Your task to perform on an android device: turn on data saver in the chrome app Image 0: 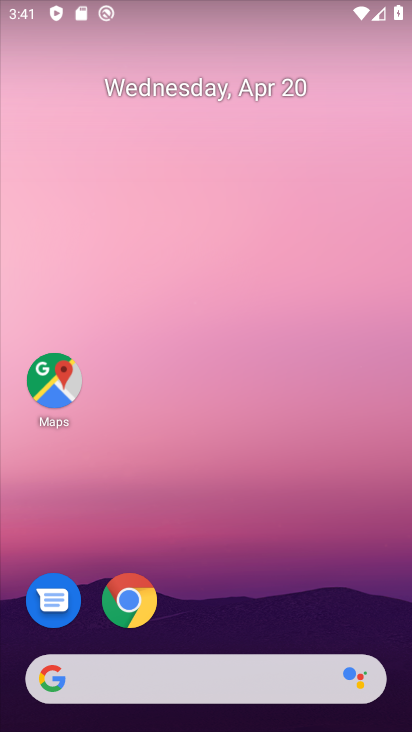
Step 0: drag from (79, 328) to (65, 89)
Your task to perform on an android device: turn on data saver in the chrome app Image 1: 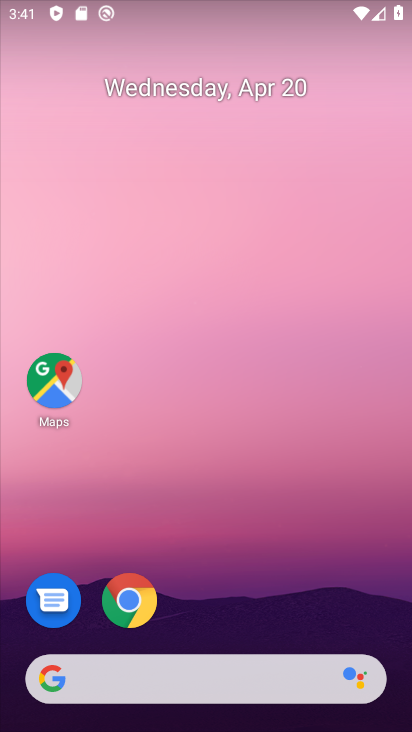
Step 1: drag from (256, 703) to (88, 48)
Your task to perform on an android device: turn on data saver in the chrome app Image 2: 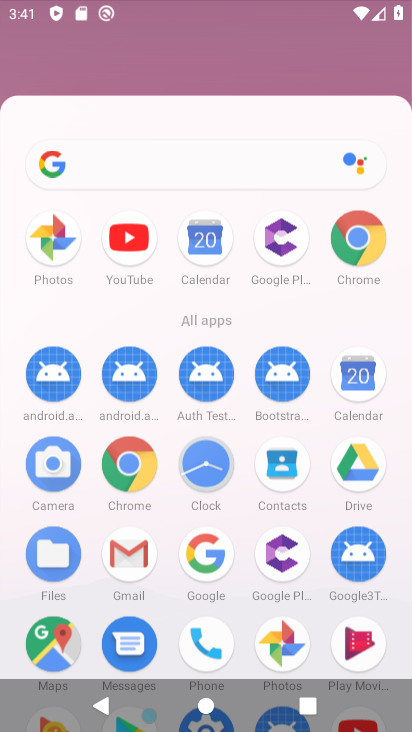
Step 2: drag from (278, 398) to (217, 153)
Your task to perform on an android device: turn on data saver in the chrome app Image 3: 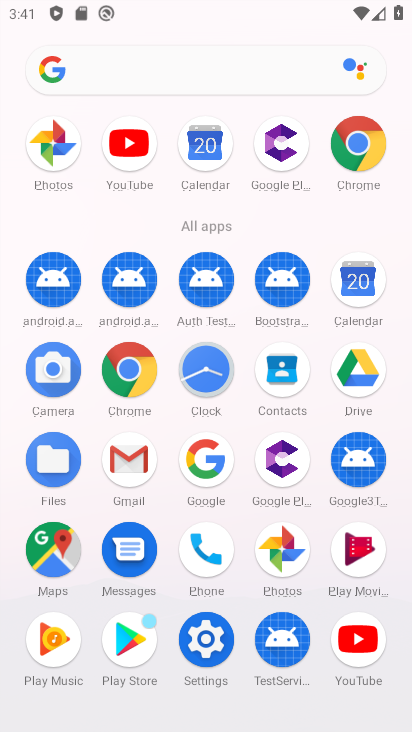
Step 3: click (363, 150)
Your task to perform on an android device: turn on data saver in the chrome app Image 4: 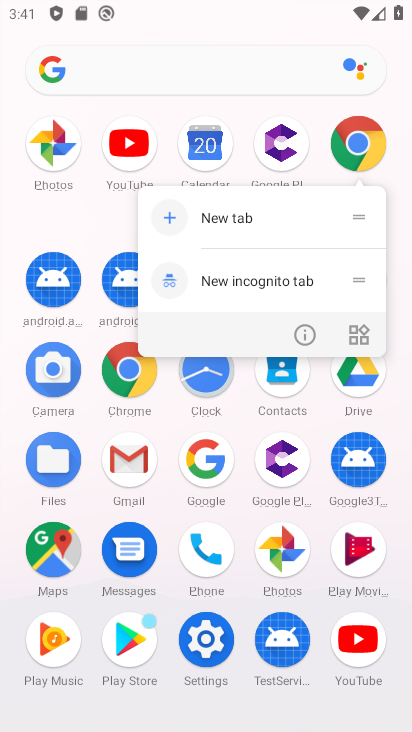
Step 4: click (198, 216)
Your task to perform on an android device: turn on data saver in the chrome app Image 5: 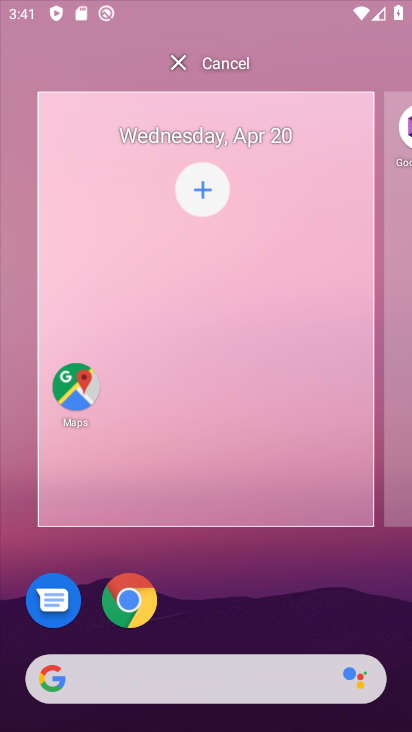
Step 5: click (213, 222)
Your task to perform on an android device: turn on data saver in the chrome app Image 6: 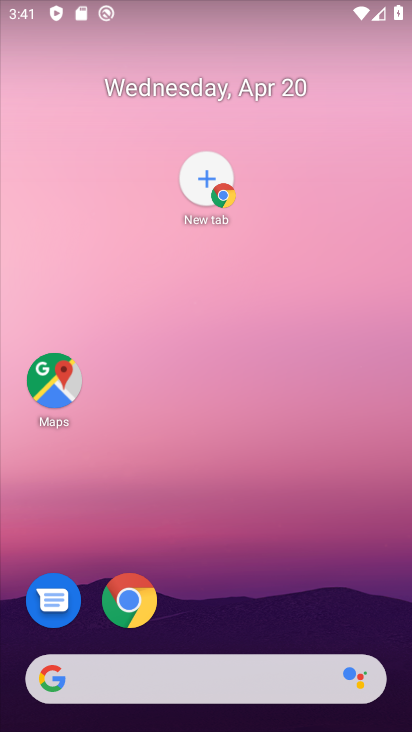
Step 6: drag from (290, 617) to (133, 167)
Your task to perform on an android device: turn on data saver in the chrome app Image 7: 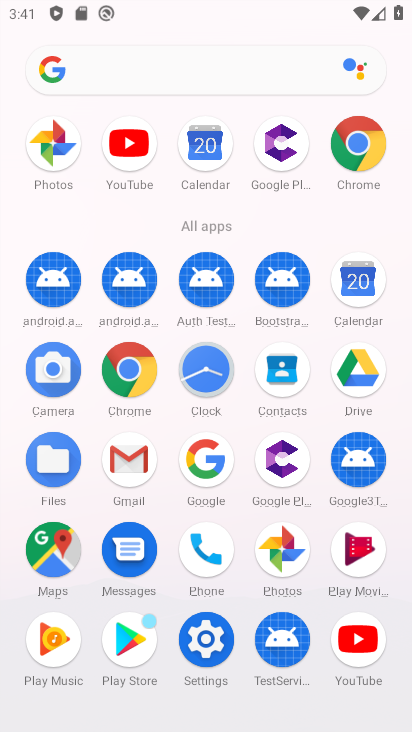
Step 7: click (349, 152)
Your task to perform on an android device: turn on data saver in the chrome app Image 8: 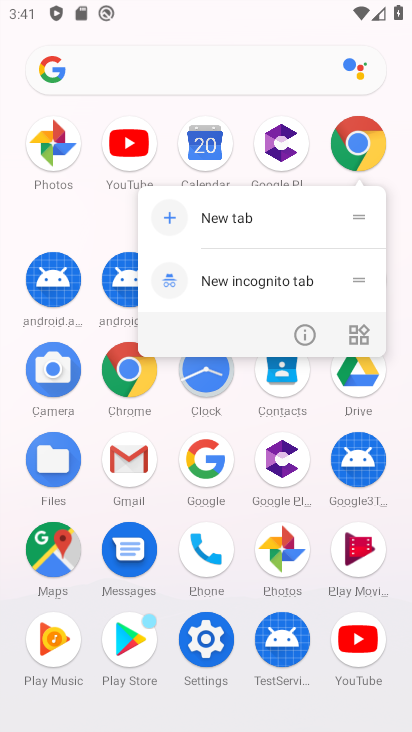
Step 8: click (234, 220)
Your task to perform on an android device: turn on data saver in the chrome app Image 9: 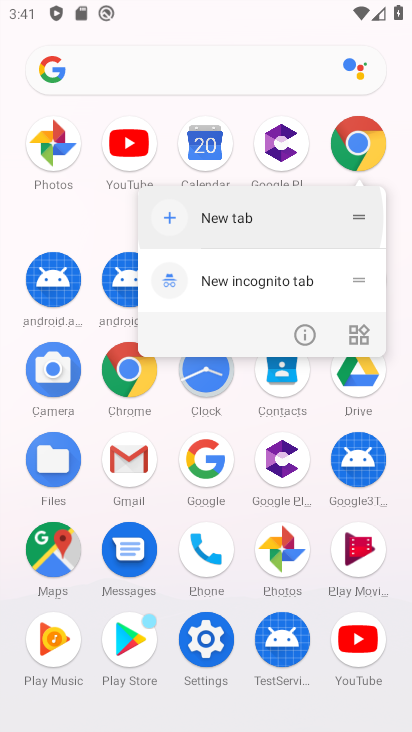
Step 9: click (234, 220)
Your task to perform on an android device: turn on data saver in the chrome app Image 10: 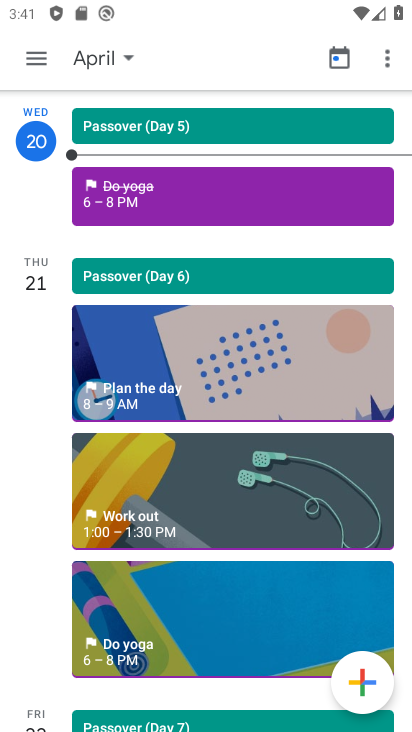
Step 10: press home button
Your task to perform on an android device: turn on data saver in the chrome app Image 11: 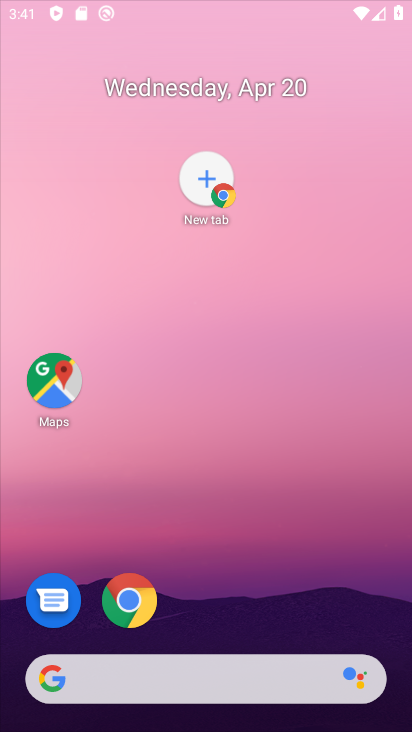
Step 11: press home button
Your task to perform on an android device: turn on data saver in the chrome app Image 12: 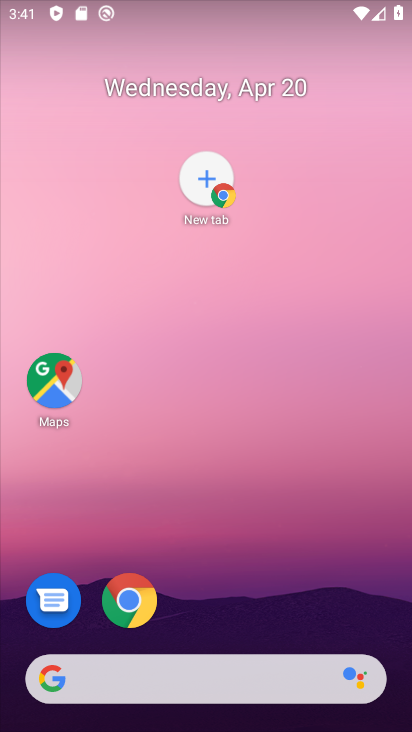
Step 12: press home button
Your task to perform on an android device: turn on data saver in the chrome app Image 13: 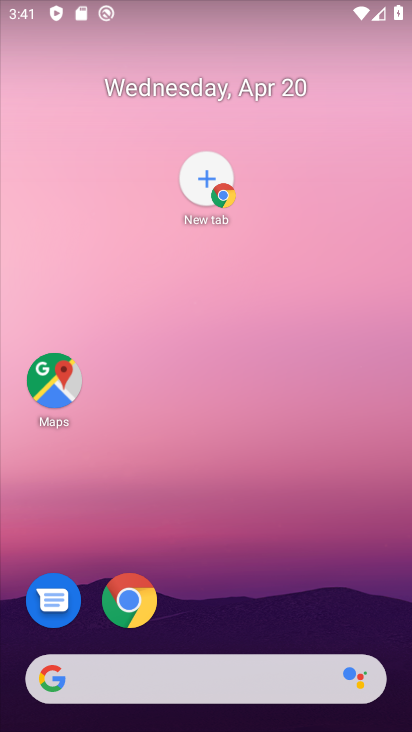
Step 13: drag from (281, 440) to (208, 46)
Your task to perform on an android device: turn on data saver in the chrome app Image 14: 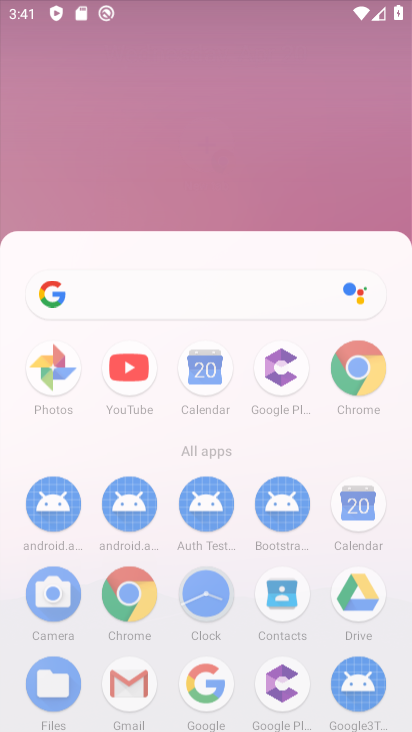
Step 14: drag from (242, 485) to (185, 10)
Your task to perform on an android device: turn on data saver in the chrome app Image 15: 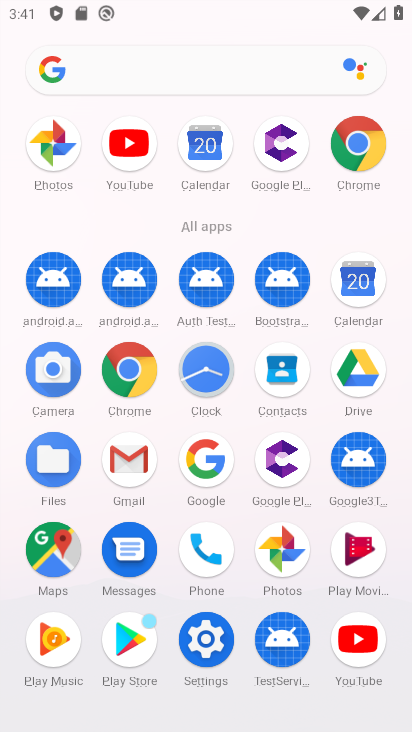
Step 15: click (358, 148)
Your task to perform on an android device: turn on data saver in the chrome app Image 16: 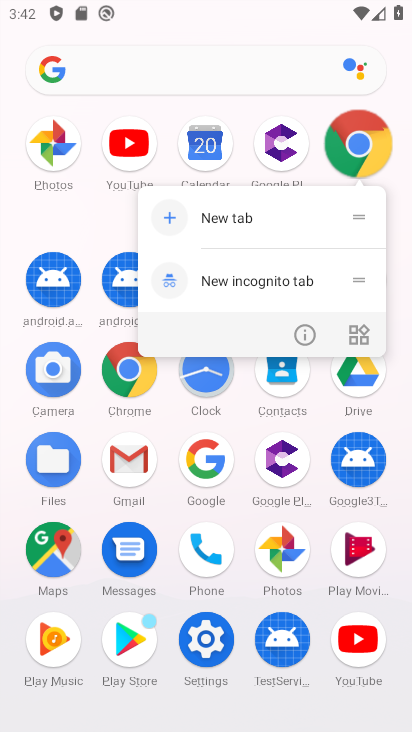
Step 16: click (226, 218)
Your task to perform on an android device: turn on data saver in the chrome app Image 17: 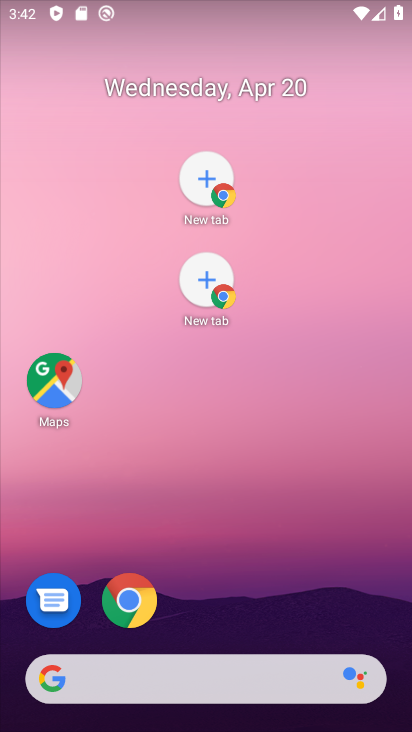
Step 17: drag from (312, 521) to (137, 118)
Your task to perform on an android device: turn on data saver in the chrome app Image 18: 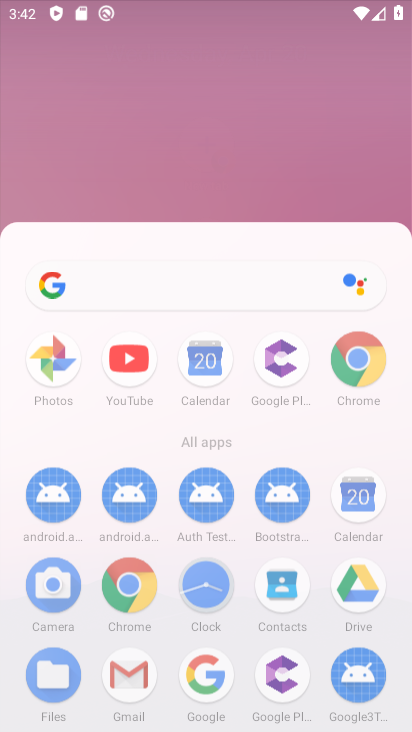
Step 18: drag from (239, 338) to (218, 237)
Your task to perform on an android device: turn on data saver in the chrome app Image 19: 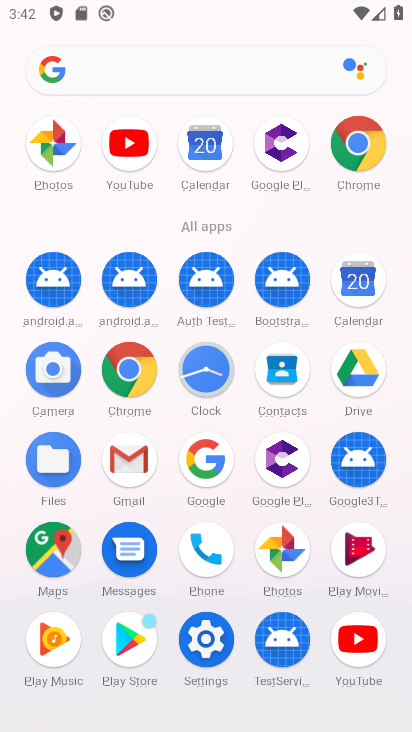
Step 19: click (359, 153)
Your task to perform on an android device: turn on data saver in the chrome app Image 20: 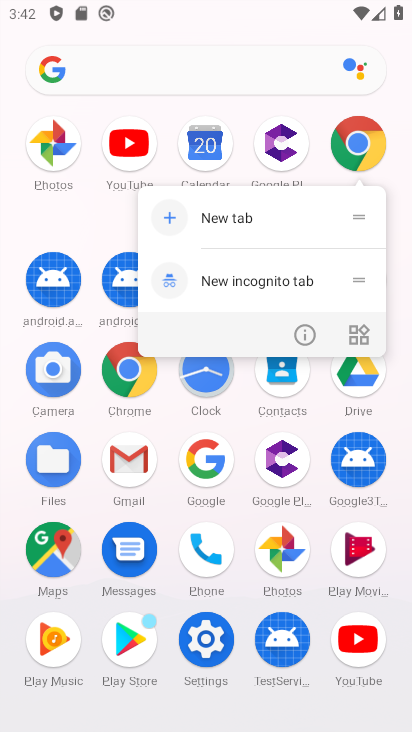
Step 20: click (359, 151)
Your task to perform on an android device: turn on data saver in the chrome app Image 21: 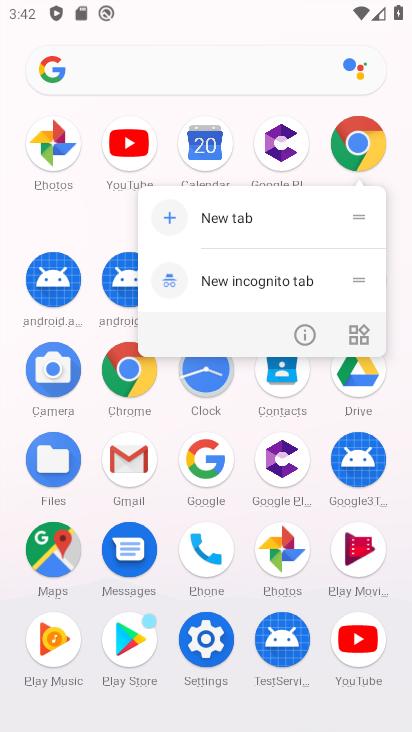
Step 21: click (359, 151)
Your task to perform on an android device: turn on data saver in the chrome app Image 22: 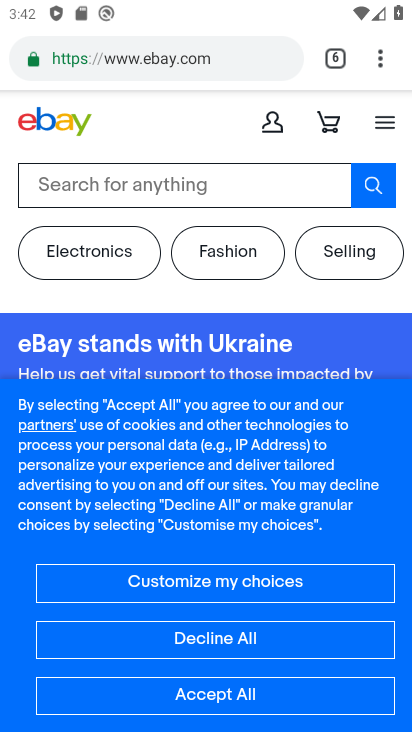
Step 22: drag from (378, 53) to (170, 616)
Your task to perform on an android device: turn on data saver in the chrome app Image 23: 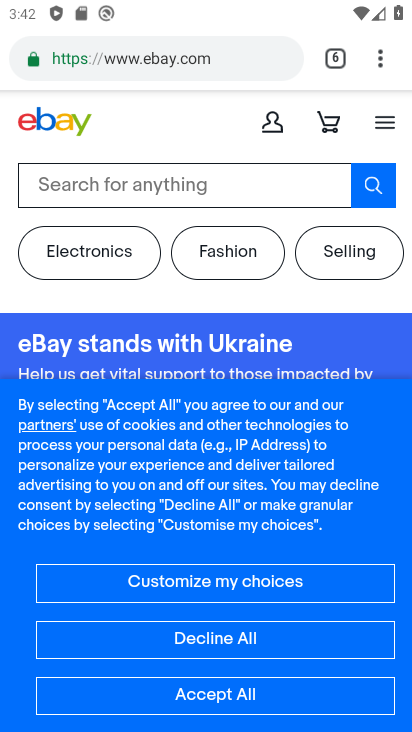
Step 23: click (163, 621)
Your task to perform on an android device: turn on data saver in the chrome app Image 24: 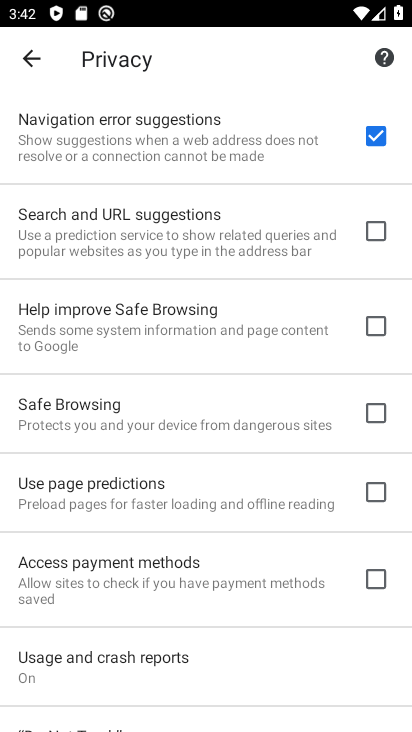
Step 24: click (30, 80)
Your task to perform on an android device: turn on data saver in the chrome app Image 25: 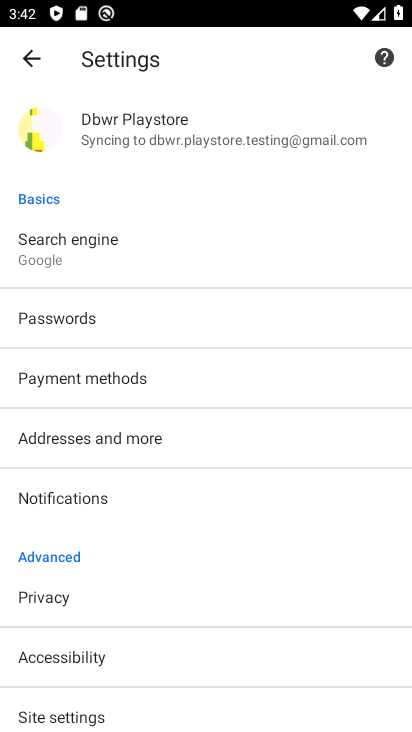
Step 25: drag from (92, 651) to (58, 335)
Your task to perform on an android device: turn on data saver in the chrome app Image 26: 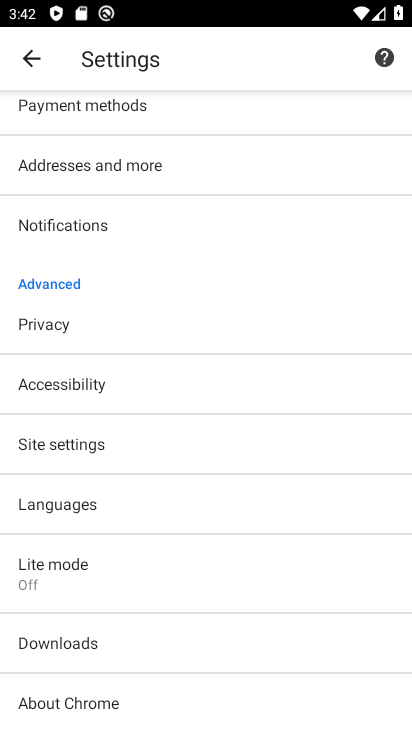
Step 26: click (40, 545)
Your task to perform on an android device: turn on data saver in the chrome app Image 27: 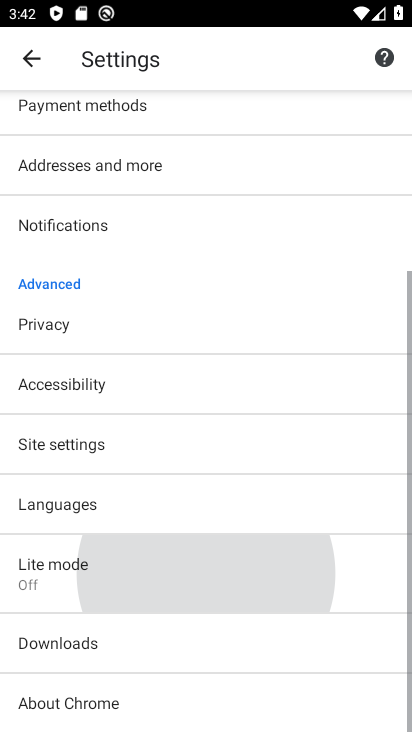
Step 27: click (48, 558)
Your task to perform on an android device: turn on data saver in the chrome app Image 28: 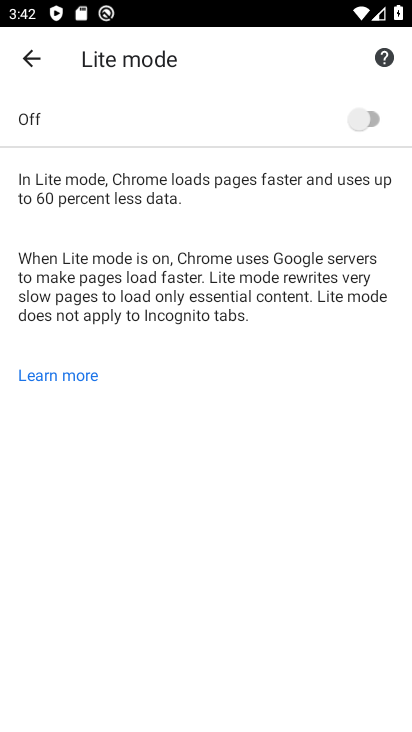
Step 28: click (357, 114)
Your task to perform on an android device: turn on data saver in the chrome app Image 29: 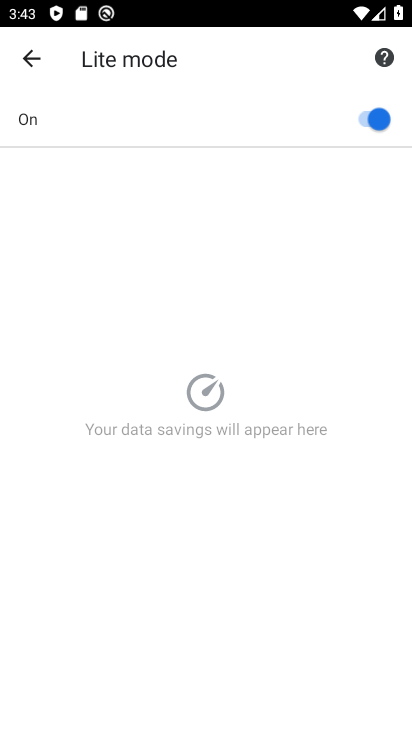
Step 29: task complete